Your task to perform on an android device: toggle notification dots Image 0: 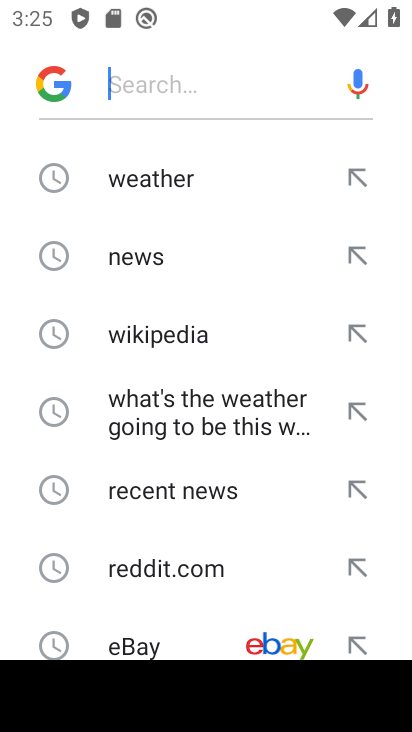
Step 0: press back button
Your task to perform on an android device: toggle notification dots Image 1: 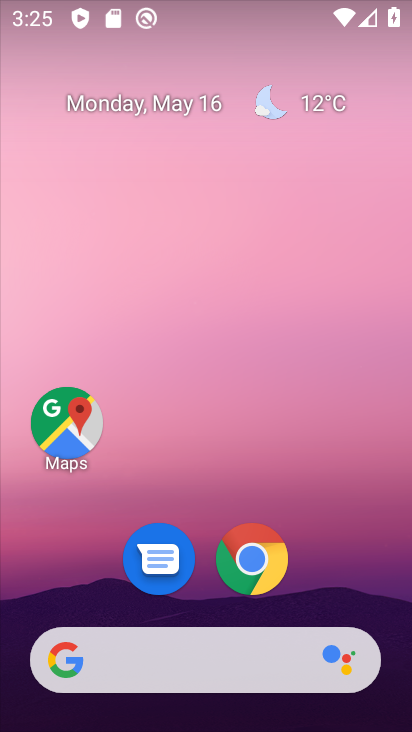
Step 1: drag from (354, 556) to (324, 58)
Your task to perform on an android device: toggle notification dots Image 2: 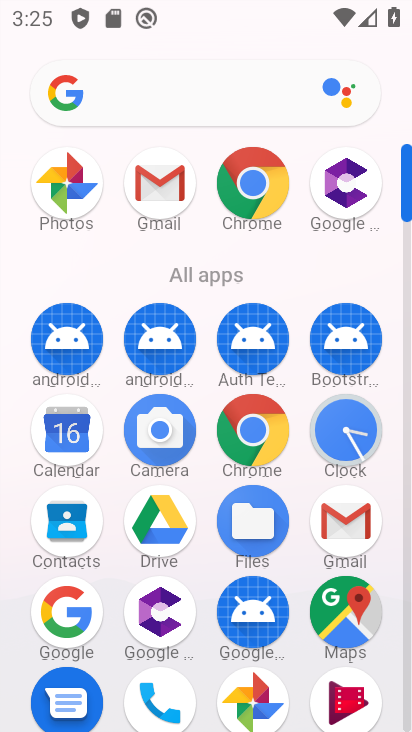
Step 2: click (409, 429)
Your task to perform on an android device: toggle notification dots Image 3: 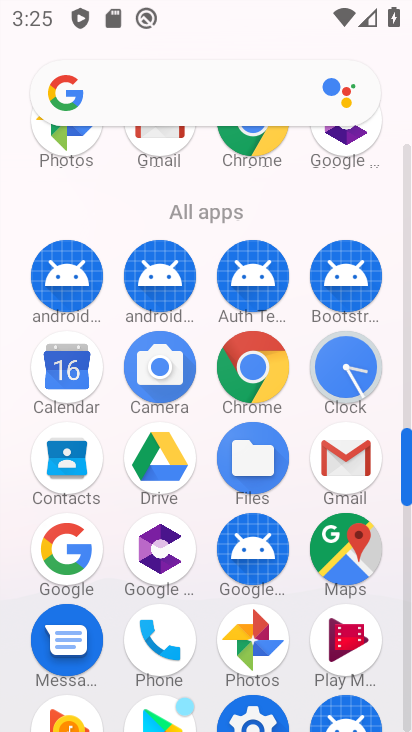
Step 3: click (271, 709)
Your task to perform on an android device: toggle notification dots Image 4: 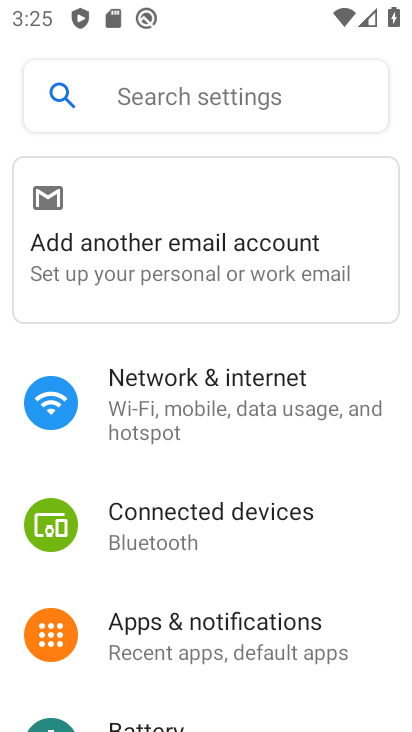
Step 4: click (204, 616)
Your task to perform on an android device: toggle notification dots Image 5: 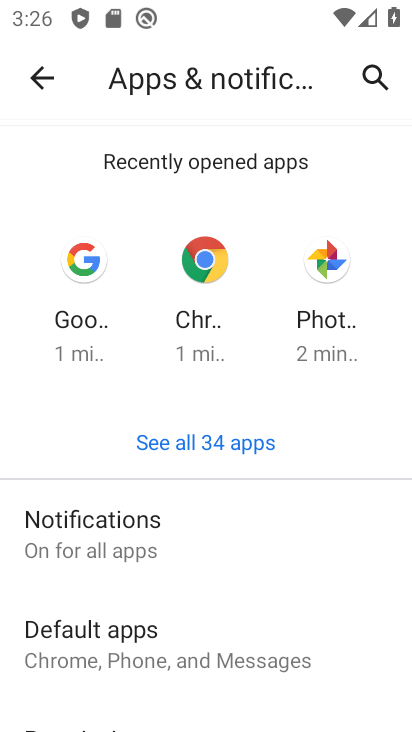
Step 5: drag from (191, 678) to (198, 406)
Your task to perform on an android device: toggle notification dots Image 6: 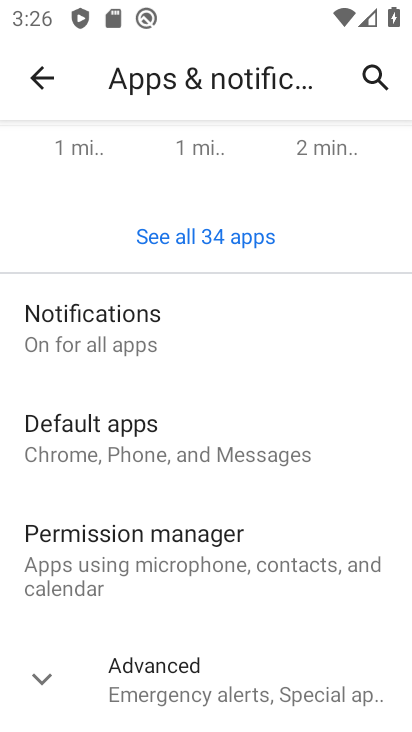
Step 6: click (129, 379)
Your task to perform on an android device: toggle notification dots Image 7: 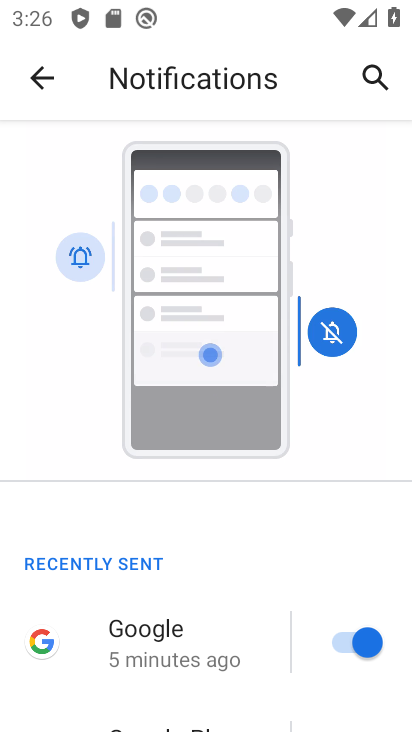
Step 7: drag from (181, 542) to (192, 92)
Your task to perform on an android device: toggle notification dots Image 8: 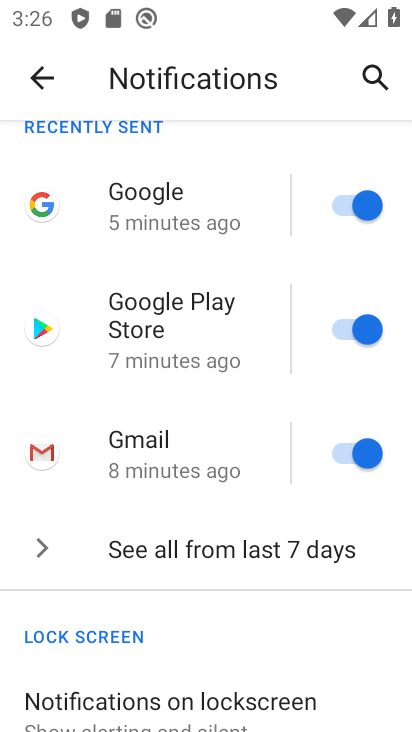
Step 8: drag from (151, 630) to (190, 295)
Your task to perform on an android device: toggle notification dots Image 9: 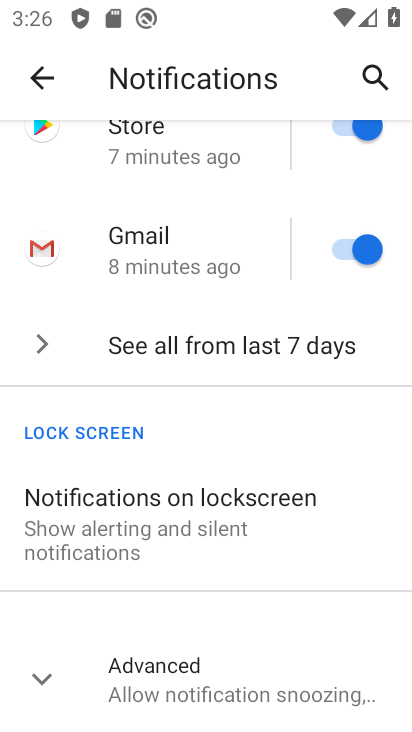
Step 9: click (204, 682)
Your task to perform on an android device: toggle notification dots Image 10: 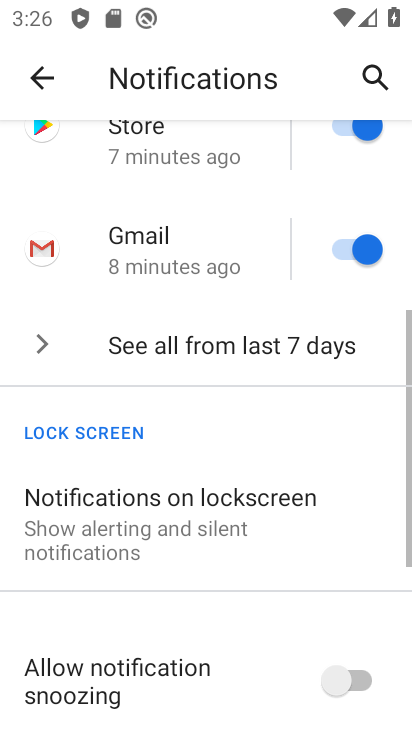
Step 10: drag from (204, 682) to (248, 310)
Your task to perform on an android device: toggle notification dots Image 11: 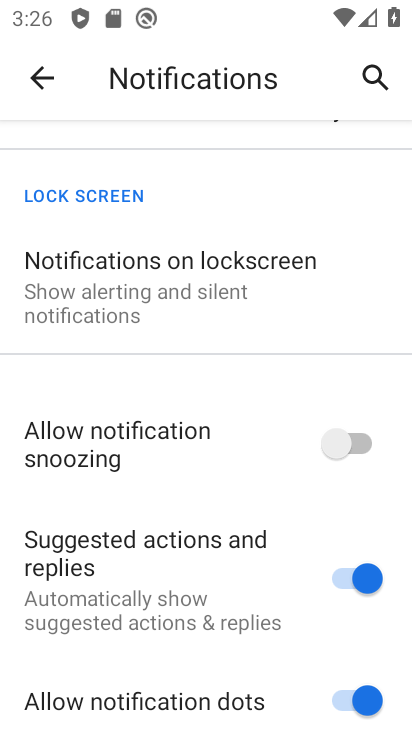
Step 11: click (378, 724)
Your task to perform on an android device: toggle notification dots Image 12: 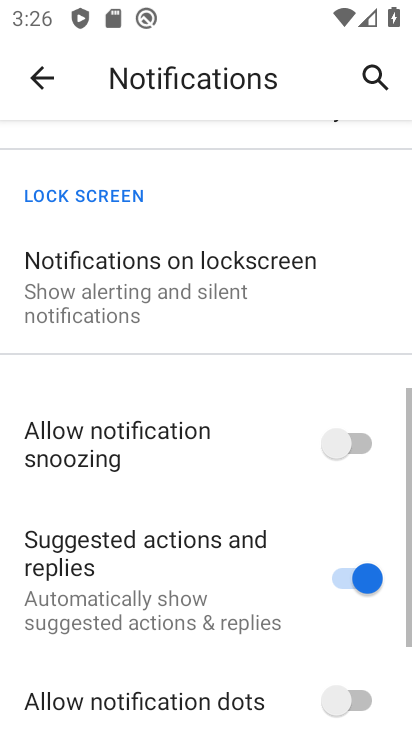
Step 12: task complete